Your task to perform on an android device: Open Amazon Image 0: 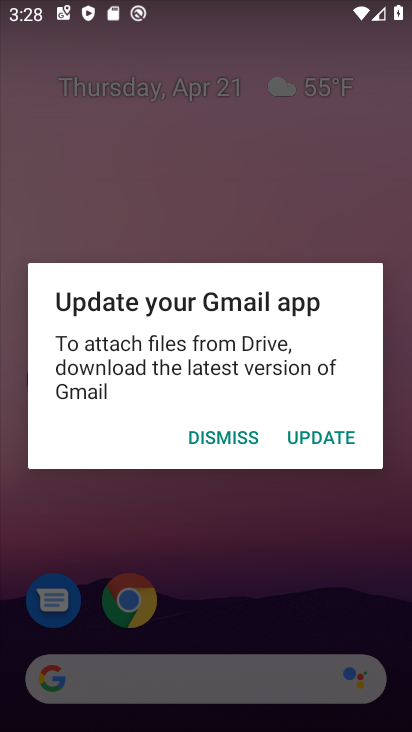
Step 0: press home button
Your task to perform on an android device: Open Amazon Image 1: 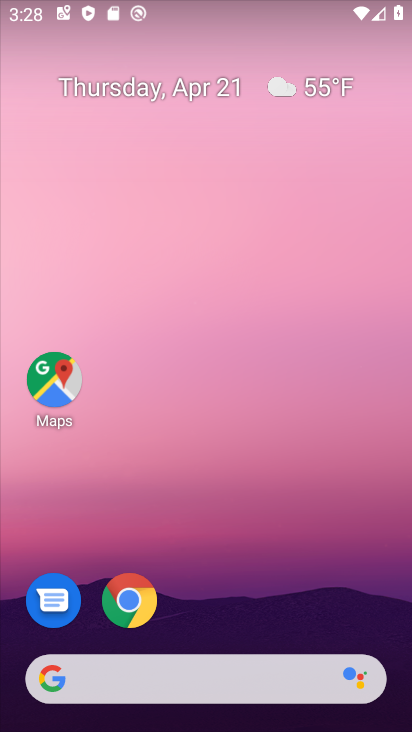
Step 1: drag from (177, 672) to (311, 130)
Your task to perform on an android device: Open Amazon Image 2: 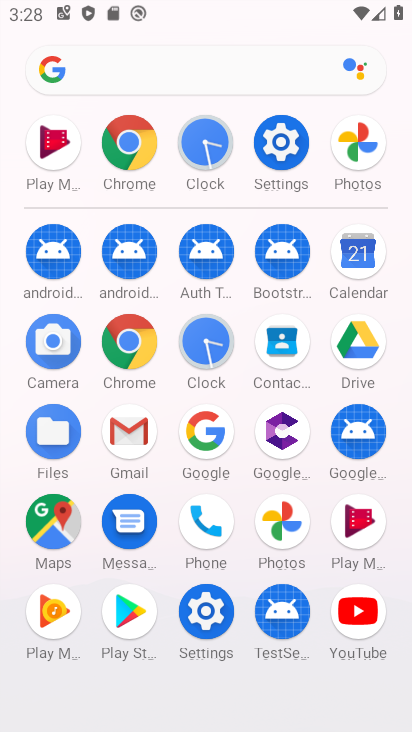
Step 2: click (131, 153)
Your task to perform on an android device: Open Amazon Image 3: 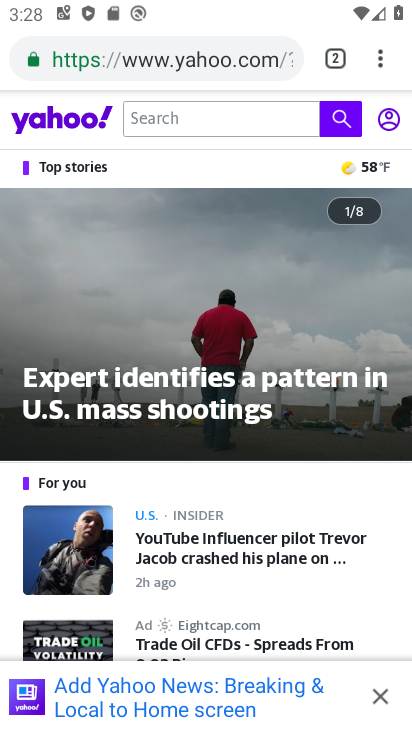
Step 3: click (370, 69)
Your task to perform on an android device: Open Amazon Image 4: 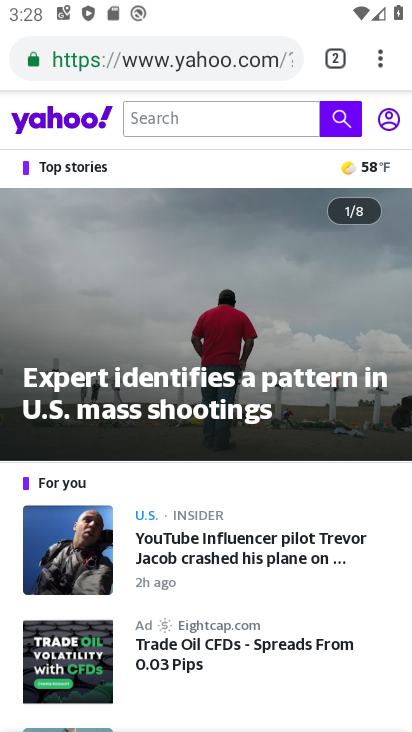
Step 4: click (370, 68)
Your task to perform on an android device: Open Amazon Image 5: 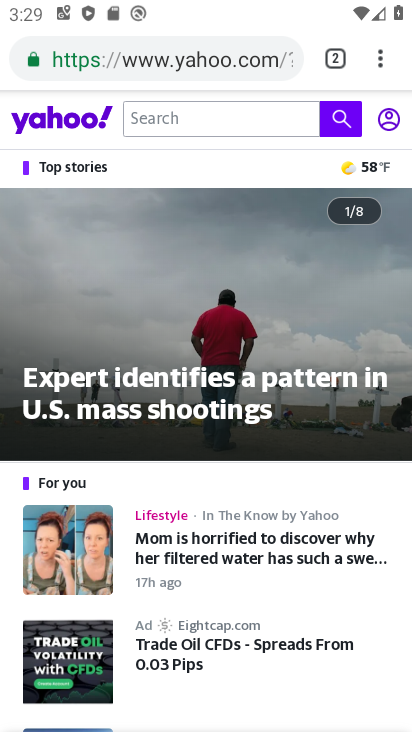
Step 5: click (366, 71)
Your task to perform on an android device: Open Amazon Image 6: 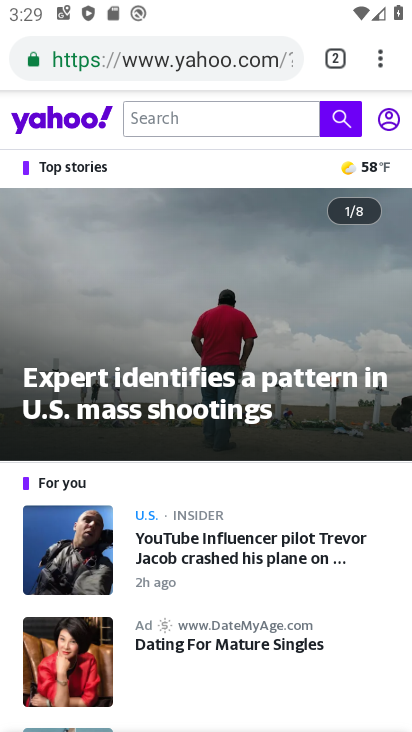
Step 6: click (363, 73)
Your task to perform on an android device: Open Amazon Image 7: 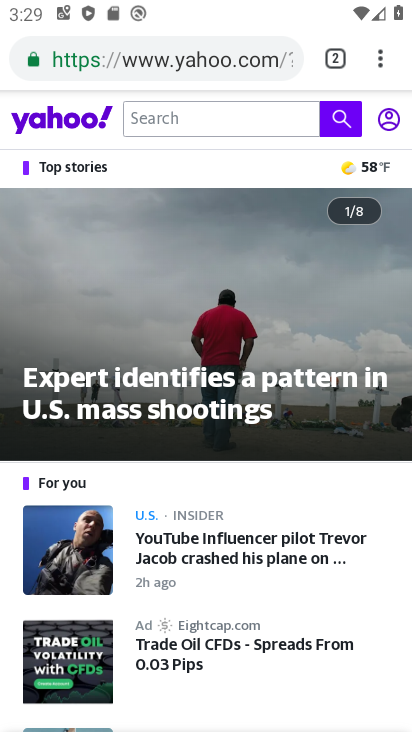
Step 7: click (389, 71)
Your task to perform on an android device: Open Amazon Image 8: 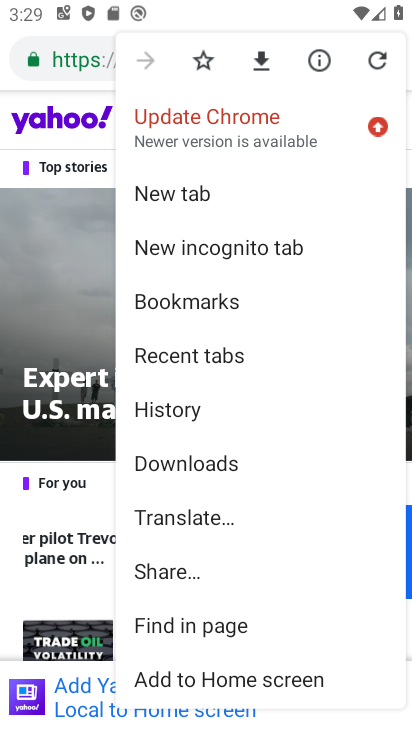
Step 8: click (187, 190)
Your task to perform on an android device: Open Amazon Image 9: 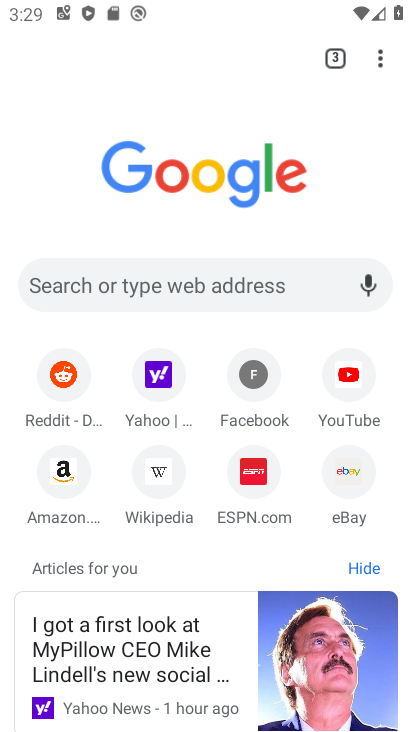
Step 9: click (65, 484)
Your task to perform on an android device: Open Amazon Image 10: 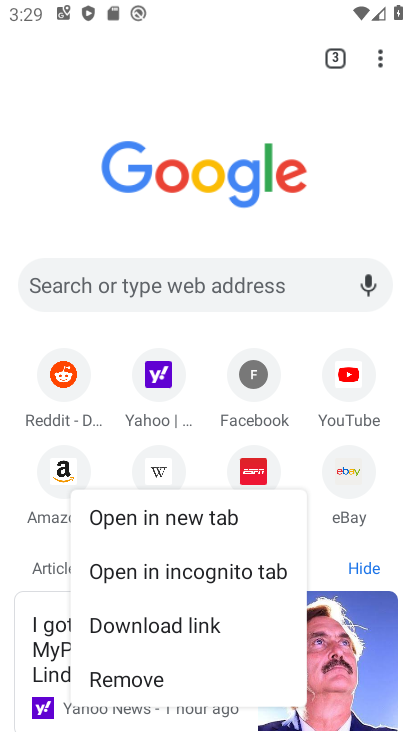
Step 10: click (63, 477)
Your task to perform on an android device: Open Amazon Image 11: 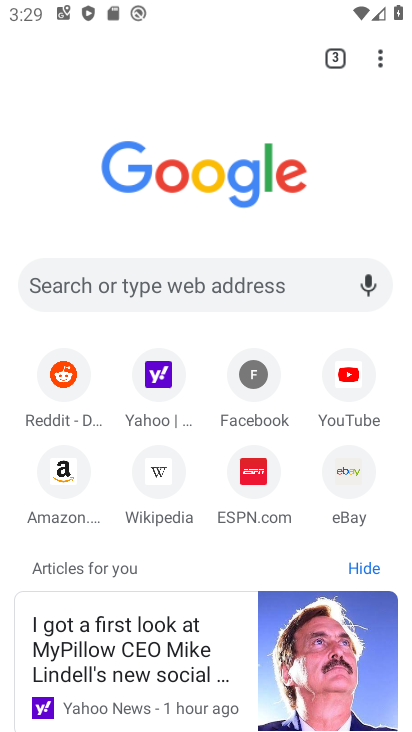
Step 11: click (62, 466)
Your task to perform on an android device: Open Amazon Image 12: 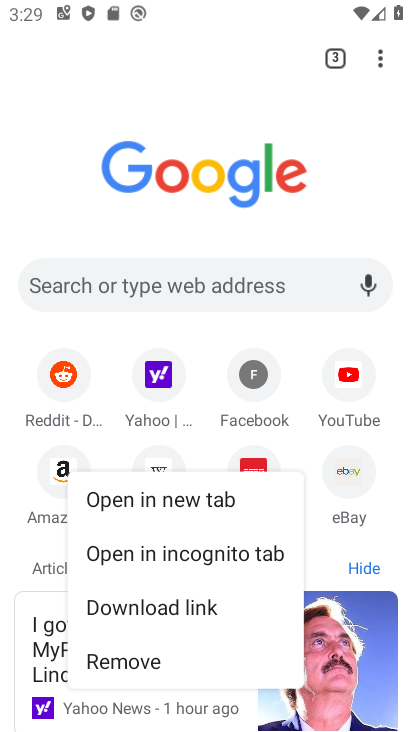
Step 12: click (51, 480)
Your task to perform on an android device: Open Amazon Image 13: 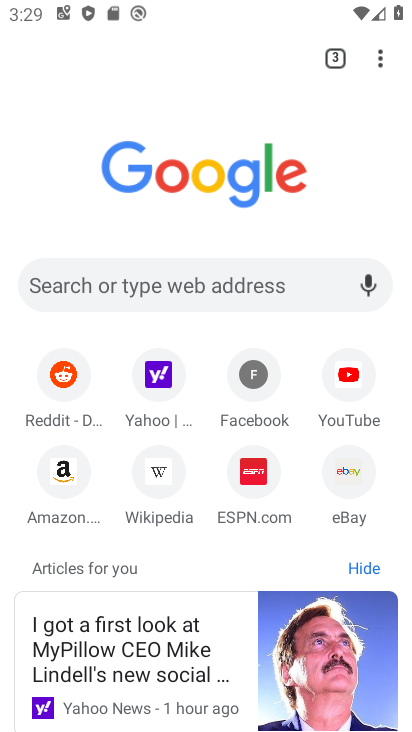
Step 13: click (67, 470)
Your task to perform on an android device: Open Amazon Image 14: 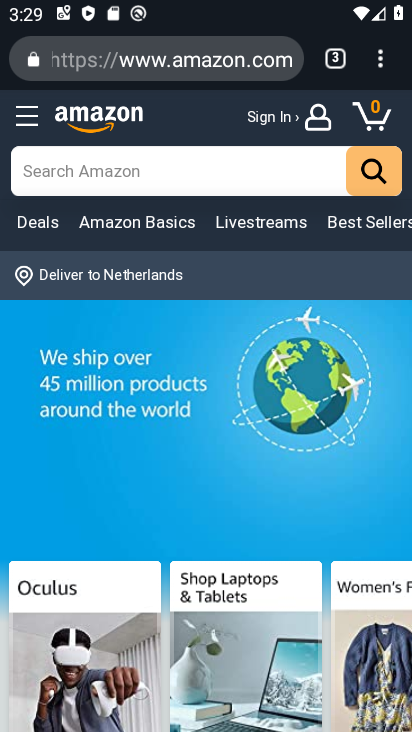
Step 14: task complete